Your task to perform on an android device: change the clock display to analog Image 0: 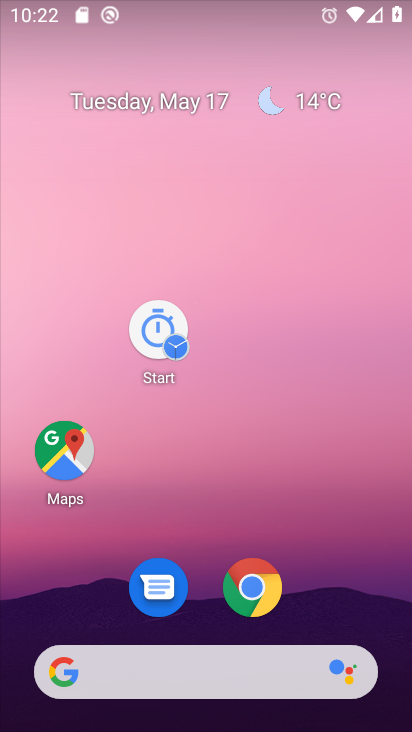
Step 0: drag from (356, 600) to (217, 90)
Your task to perform on an android device: change the clock display to analog Image 1: 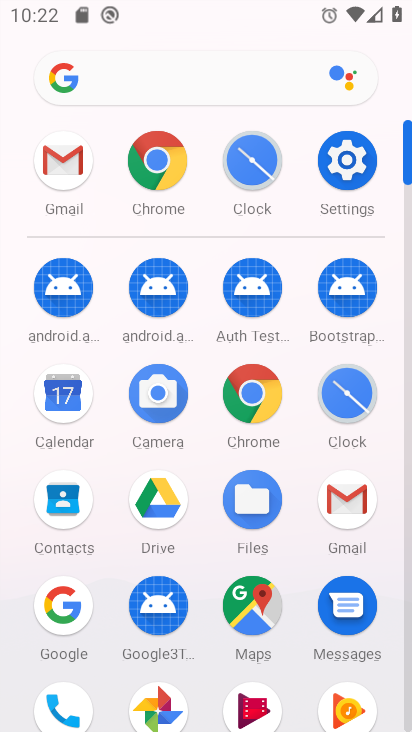
Step 1: click (267, 164)
Your task to perform on an android device: change the clock display to analog Image 2: 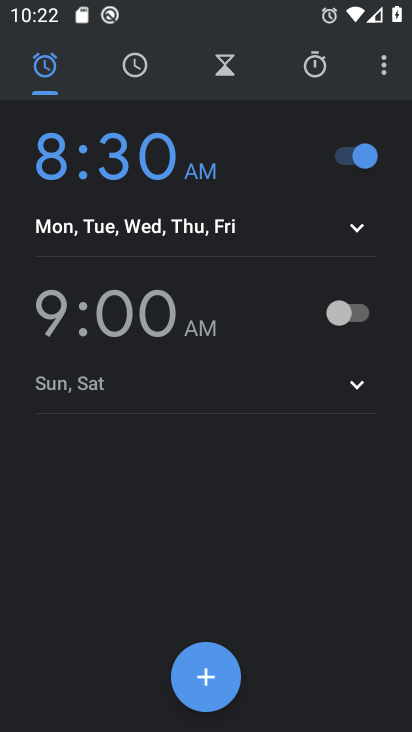
Step 2: click (381, 60)
Your task to perform on an android device: change the clock display to analog Image 3: 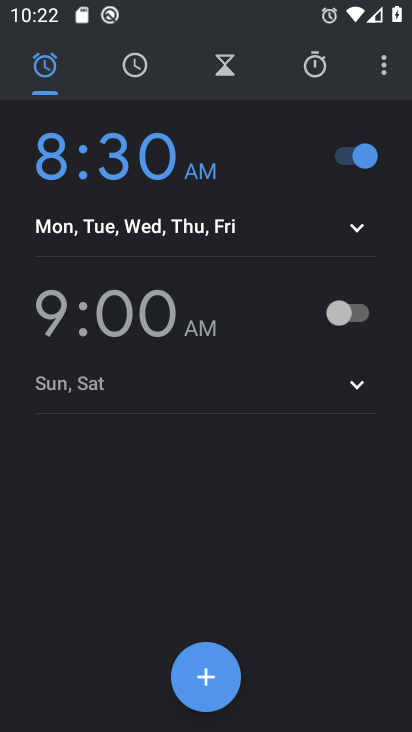
Step 3: click (377, 67)
Your task to perform on an android device: change the clock display to analog Image 4: 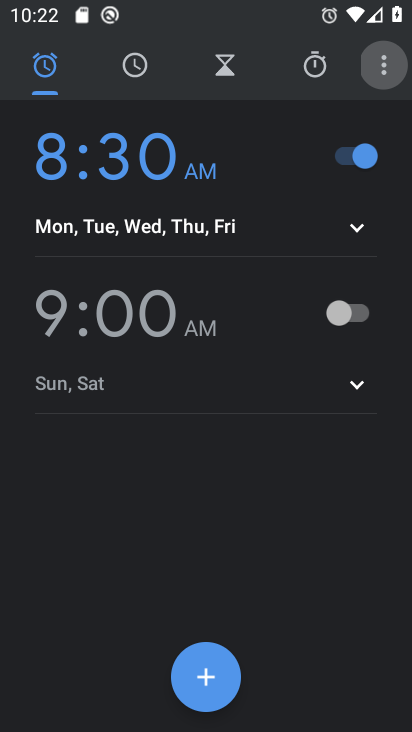
Step 4: click (378, 66)
Your task to perform on an android device: change the clock display to analog Image 5: 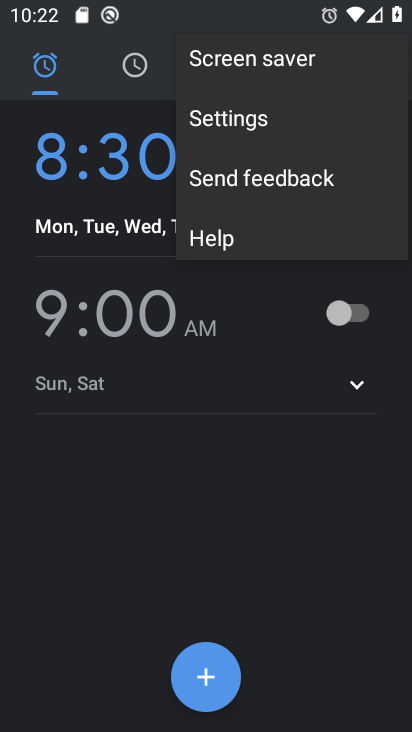
Step 5: click (378, 66)
Your task to perform on an android device: change the clock display to analog Image 6: 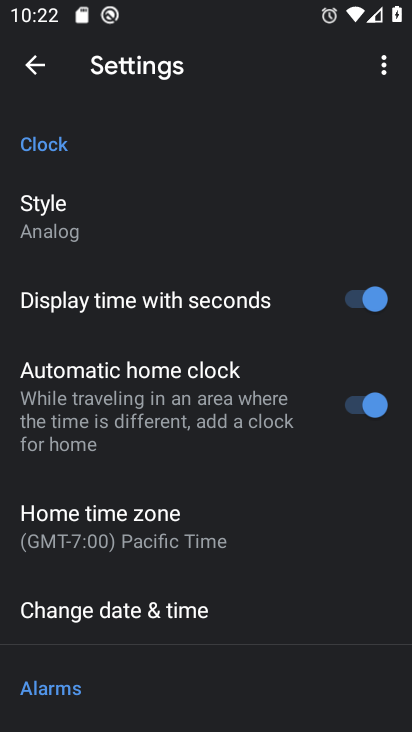
Step 6: click (101, 213)
Your task to perform on an android device: change the clock display to analog Image 7: 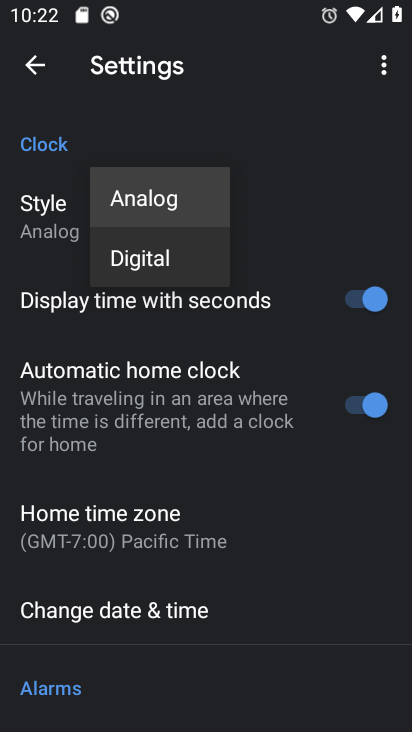
Step 7: click (174, 201)
Your task to perform on an android device: change the clock display to analog Image 8: 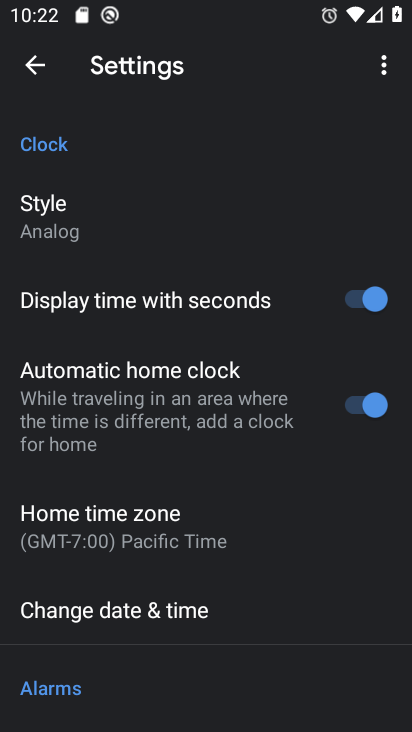
Step 8: task complete